Your task to perform on an android device: What is the recent news? Image 0: 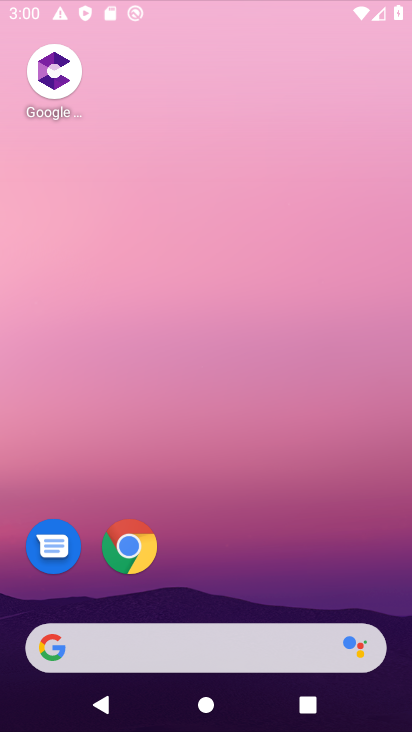
Step 0: click (129, 550)
Your task to perform on an android device: What is the recent news? Image 1: 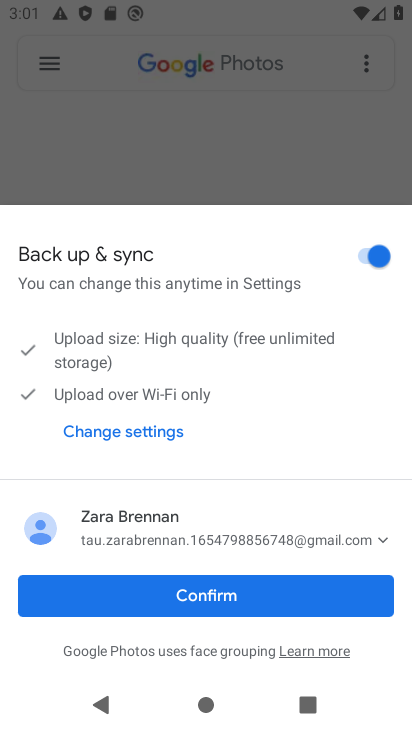
Step 1: press home button
Your task to perform on an android device: What is the recent news? Image 2: 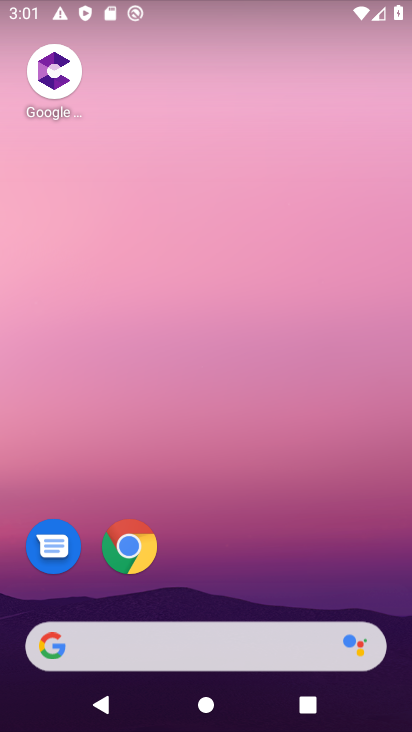
Step 2: click (159, 642)
Your task to perform on an android device: What is the recent news? Image 3: 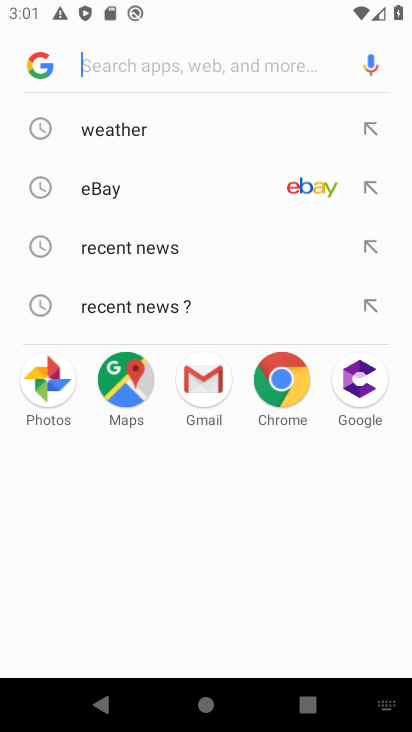
Step 3: click (138, 310)
Your task to perform on an android device: What is the recent news? Image 4: 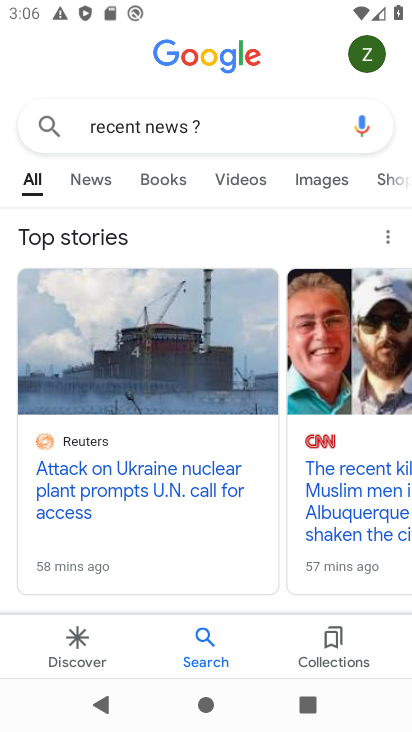
Step 4: task complete